Your task to perform on an android device: turn on wifi Image 0: 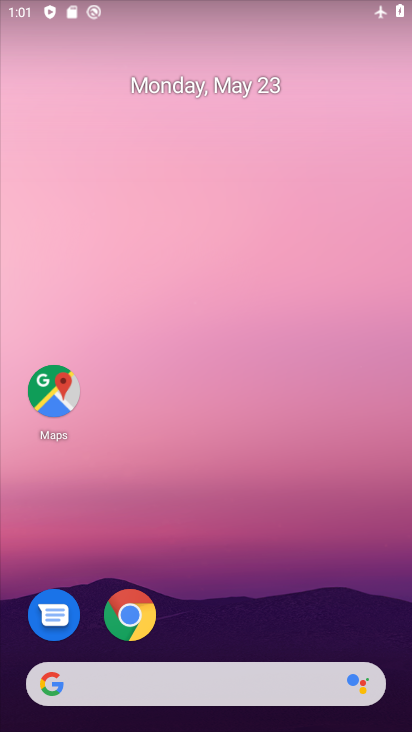
Step 0: drag from (219, 656) to (187, 135)
Your task to perform on an android device: turn on wifi Image 1: 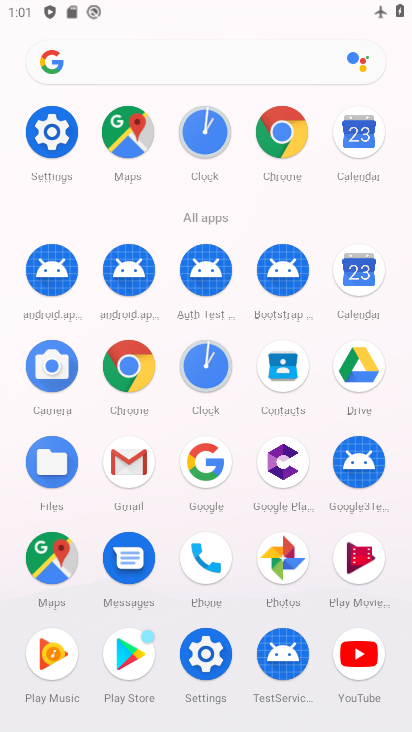
Step 1: click (66, 131)
Your task to perform on an android device: turn on wifi Image 2: 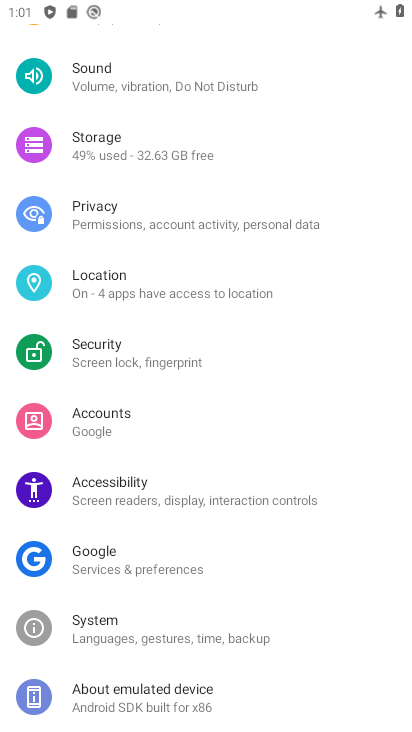
Step 2: drag from (66, 131) to (116, 701)
Your task to perform on an android device: turn on wifi Image 3: 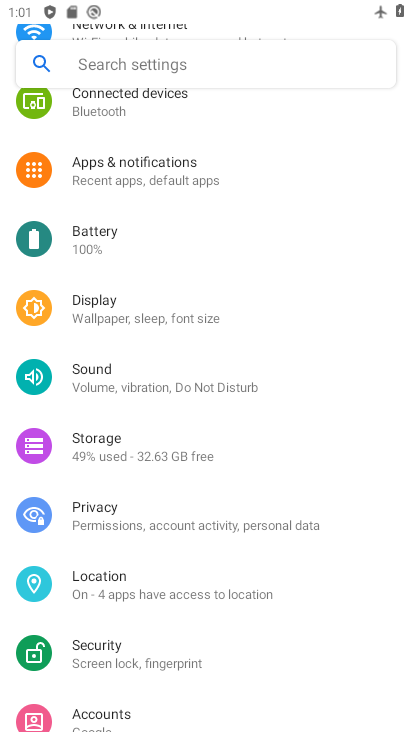
Step 3: drag from (168, 228) to (151, 481)
Your task to perform on an android device: turn on wifi Image 4: 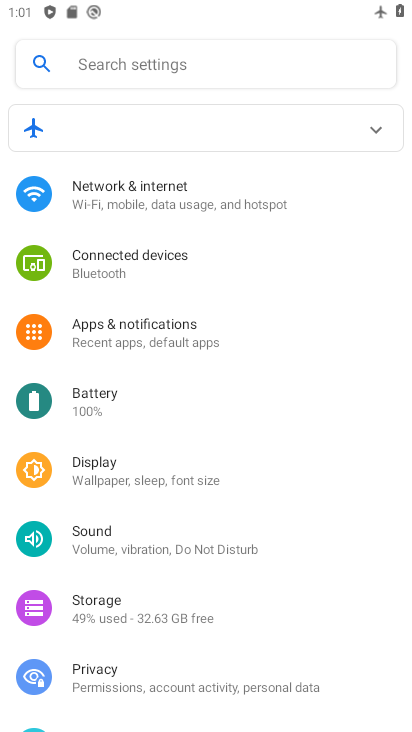
Step 4: click (112, 179)
Your task to perform on an android device: turn on wifi Image 5: 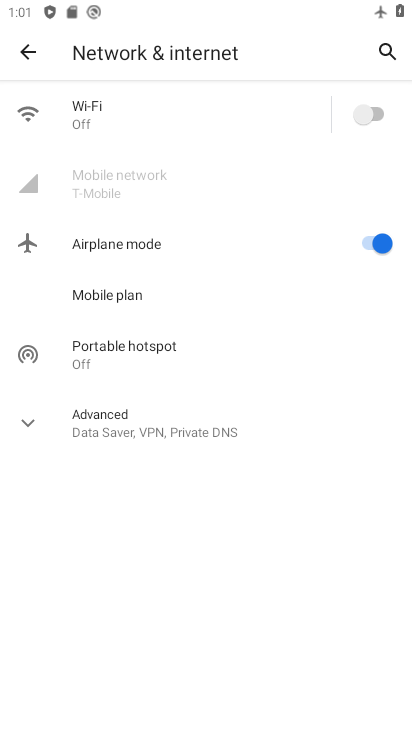
Step 5: click (356, 114)
Your task to perform on an android device: turn on wifi Image 6: 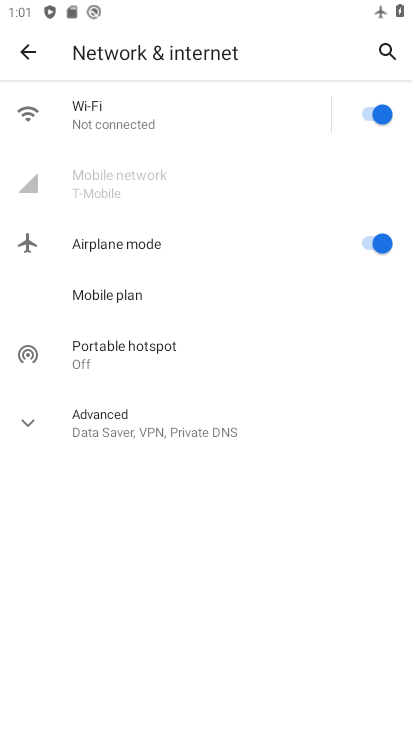
Step 6: task complete